Your task to perform on an android device: turn off location Image 0: 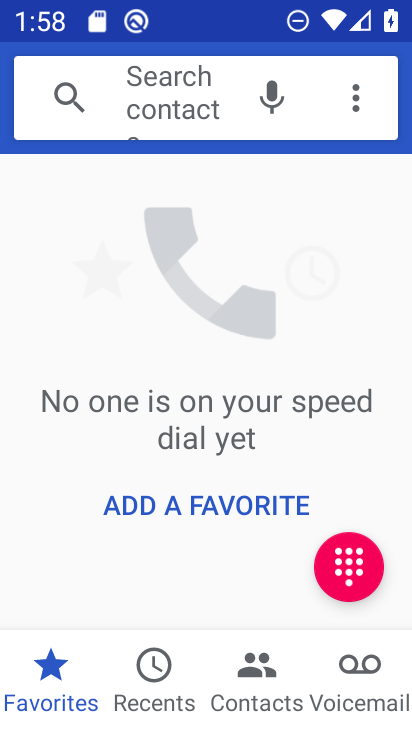
Step 0: press home button
Your task to perform on an android device: turn off location Image 1: 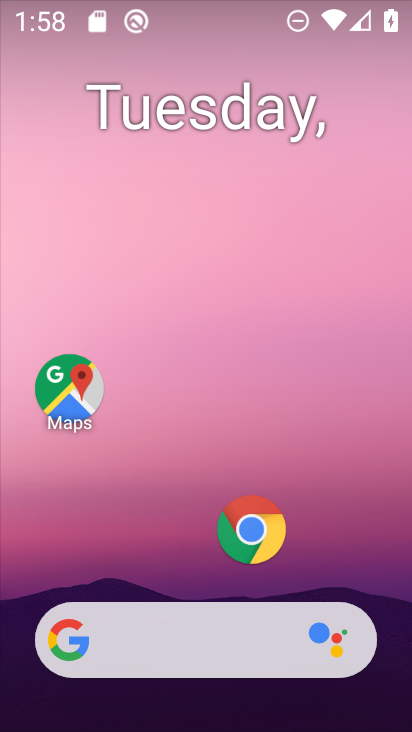
Step 1: drag from (209, 680) to (231, 97)
Your task to perform on an android device: turn off location Image 2: 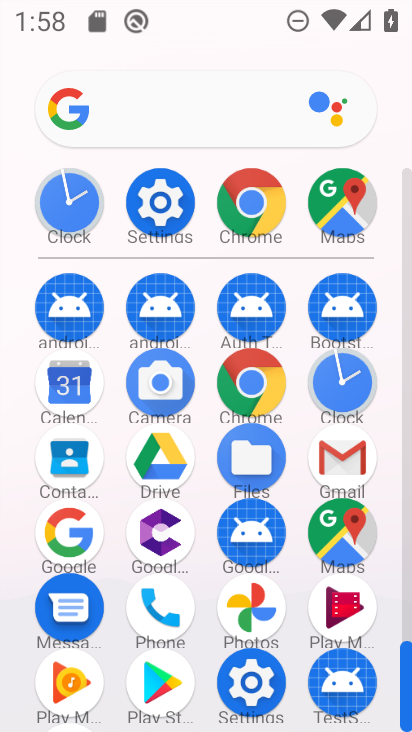
Step 2: click (260, 650)
Your task to perform on an android device: turn off location Image 3: 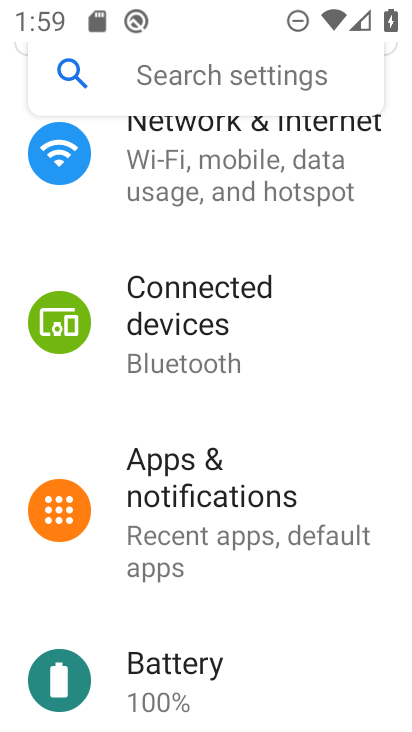
Step 3: click (191, 81)
Your task to perform on an android device: turn off location Image 4: 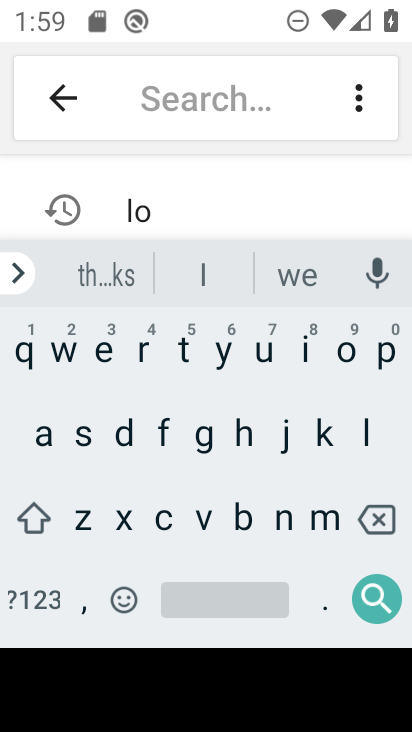
Step 4: click (151, 212)
Your task to perform on an android device: turn off location Image 5: 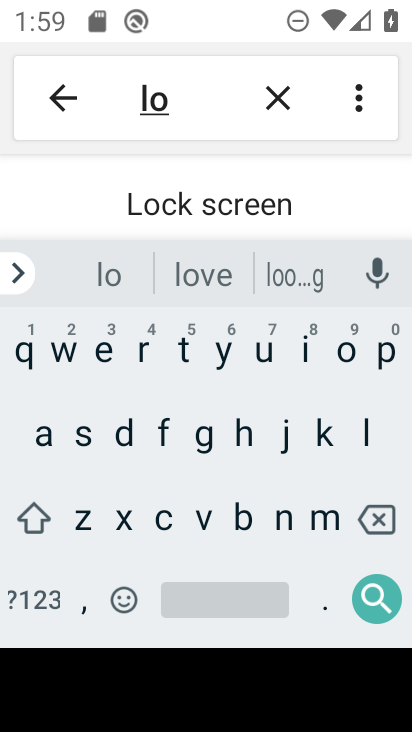
Step 5: press back button
Your task to perform on an android device: turn off location Image 6: 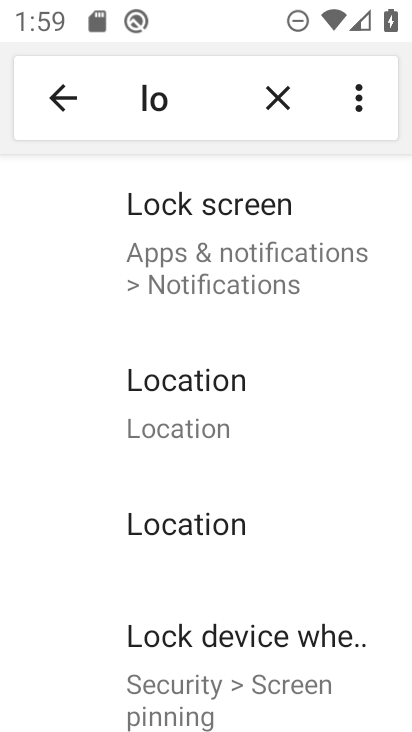
Step 6: click (188, 413)
Your task to perform on an android device: turn off location Image 7: 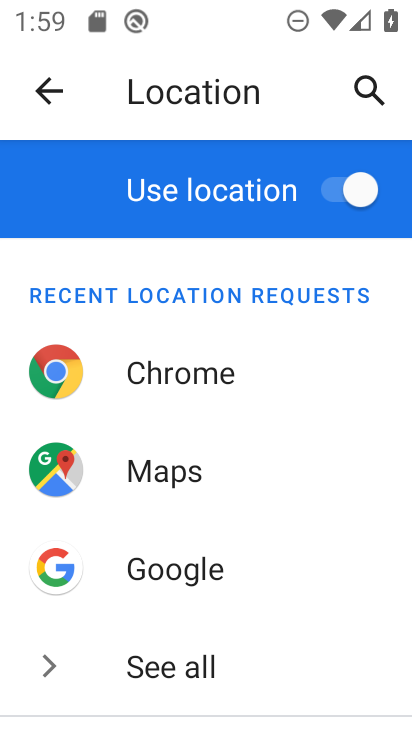
Step 7: click (348, 183)
Your task to perform on an android device: turn off location Image 8: 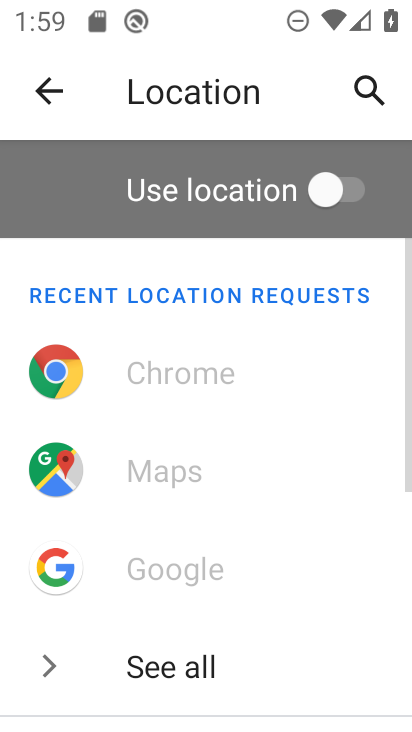
Step 8: task complete